Your task to perform on an android device: open wifi settings Image 0: 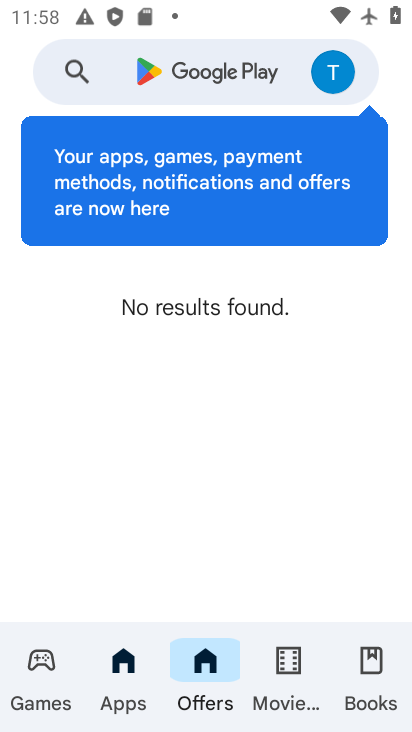
Step 0: press home button
Your task to perform on an android device: open wifi settings Image 1: 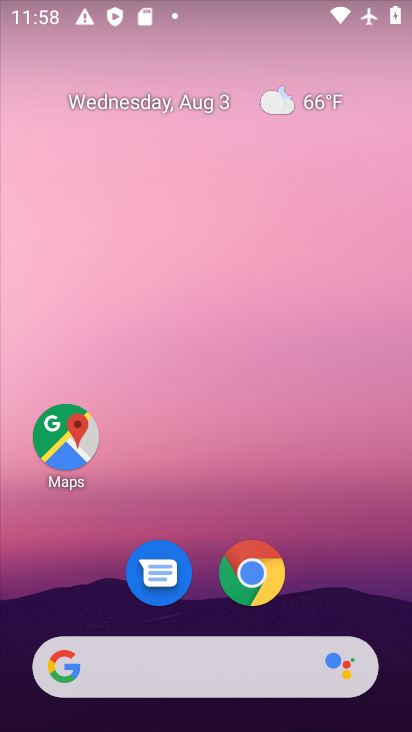
Step 1: drag from (317, 606) to (312, 137)
Your task to perform on an android device: open wifi settings Image 2: 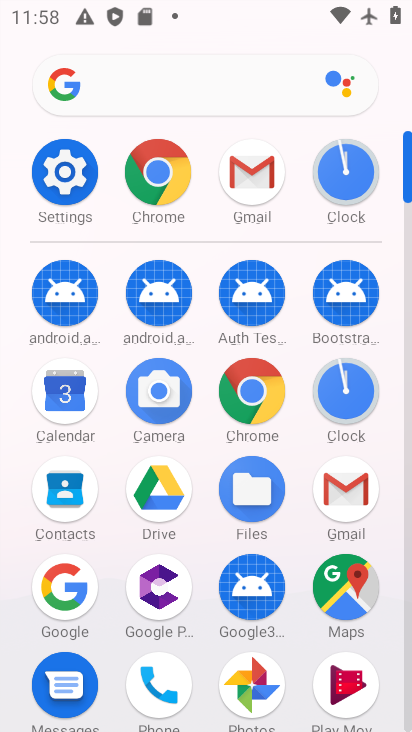
Step 2: click (68, 181)
Your task to perform on an android device: open wifi settings Image 3: 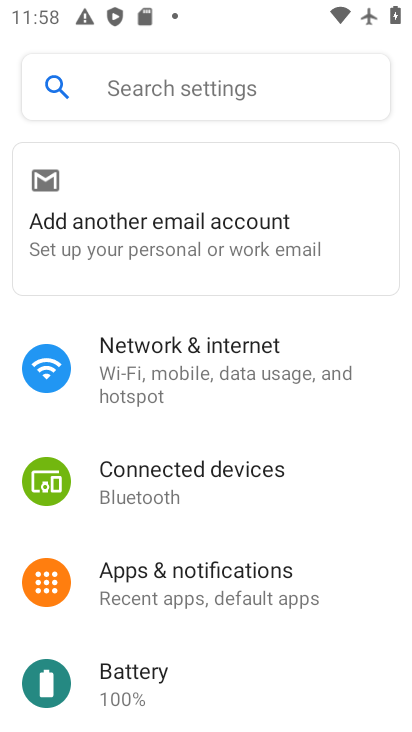
Step 3: click (182, 357)
Your task to perform on an android device: open wifi settings Image 4: 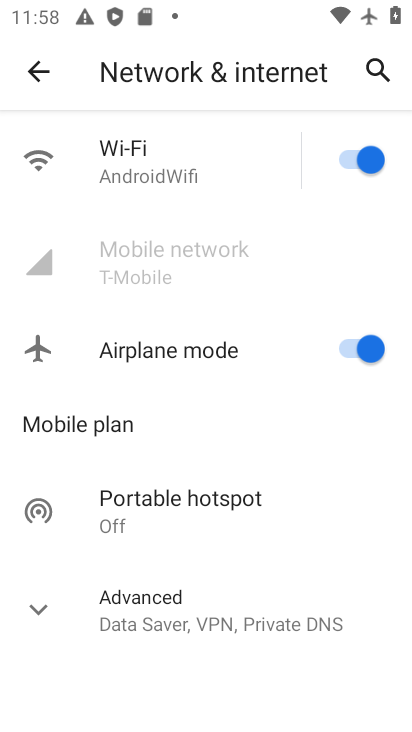
Step 4: click (206, 158)
Your task to perform on an android device: open wifi settings Image 5: 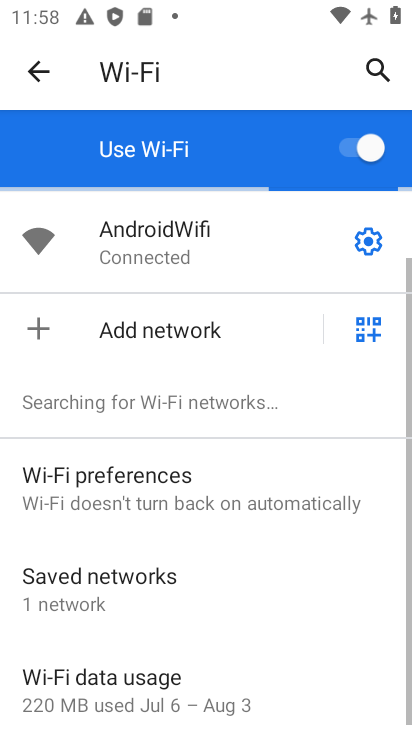
Step 5: click (370, 236)
Your task to perform on an android device: open wifi settings Image 6: 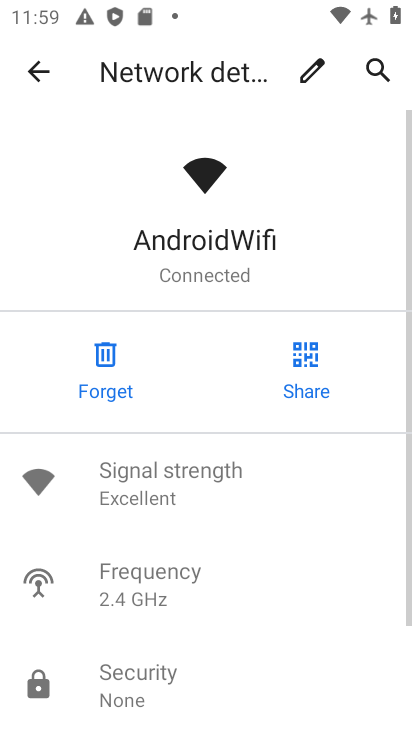
Step 6: task complete